Your task to perform on an android device: turn vacation reply on in the gmail app Image 0: 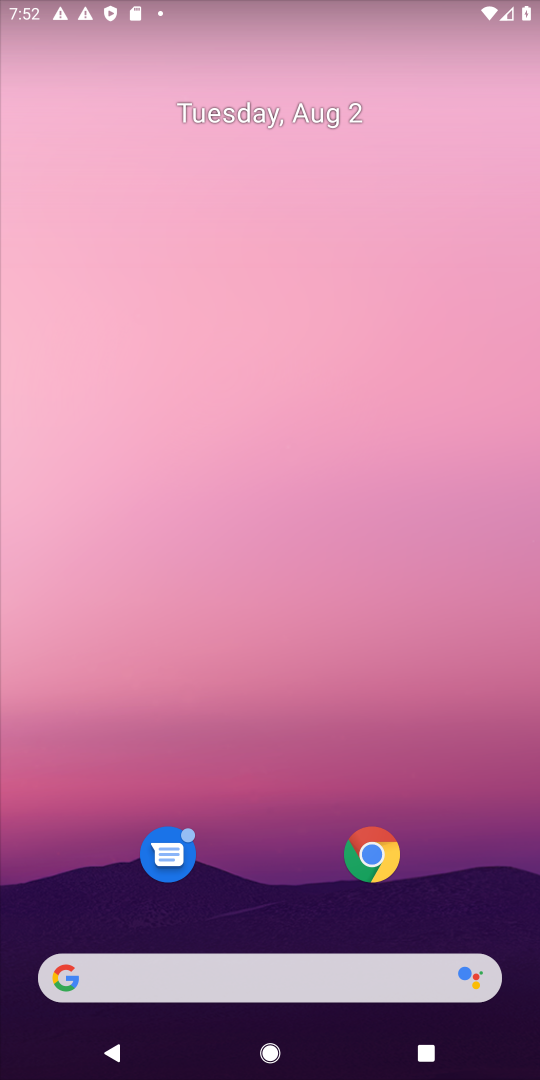
Step 0: drag from (459, 893) to (487, 66)
Your task to perform on an android device: turn vacation reply on in the gmail app Image 1: 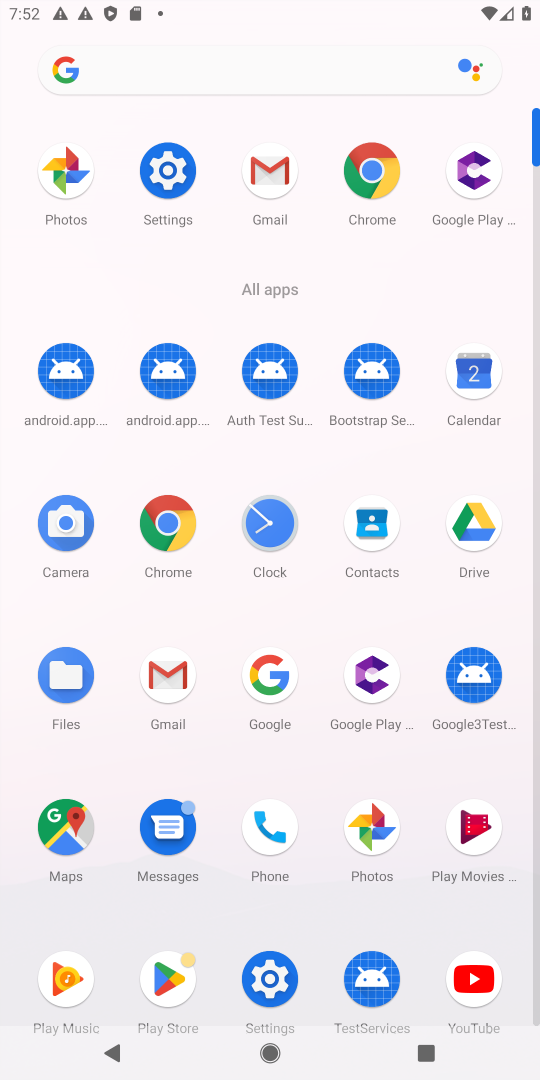
Step 1: click (159, 673)
Your task to perform on an android device: turn vacation reply on in the gmail app Image 2: 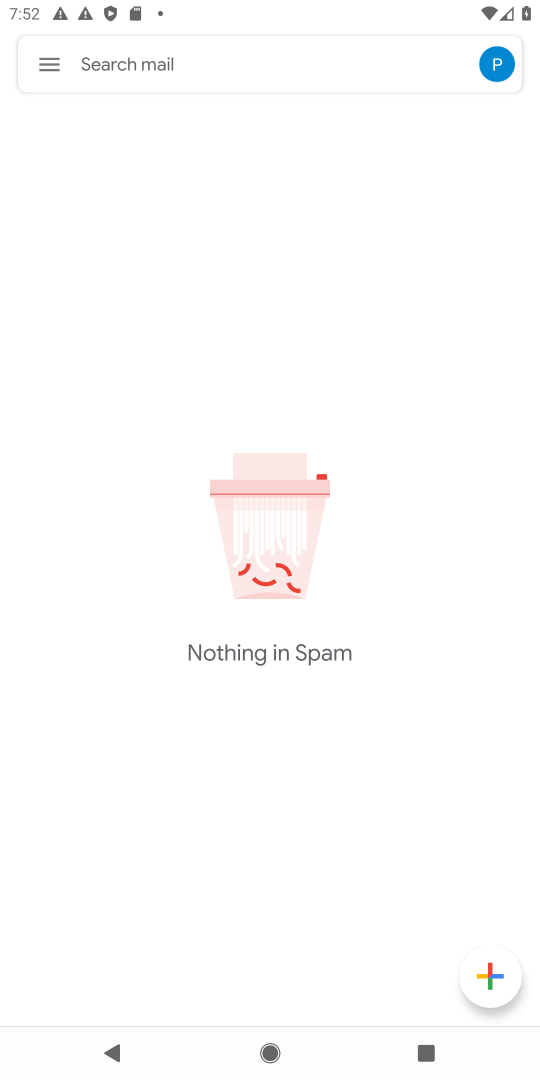
Step 2: click (39, 60)
Your task to perform on an android device: turn vacation reply on in the gmail app Image 3: 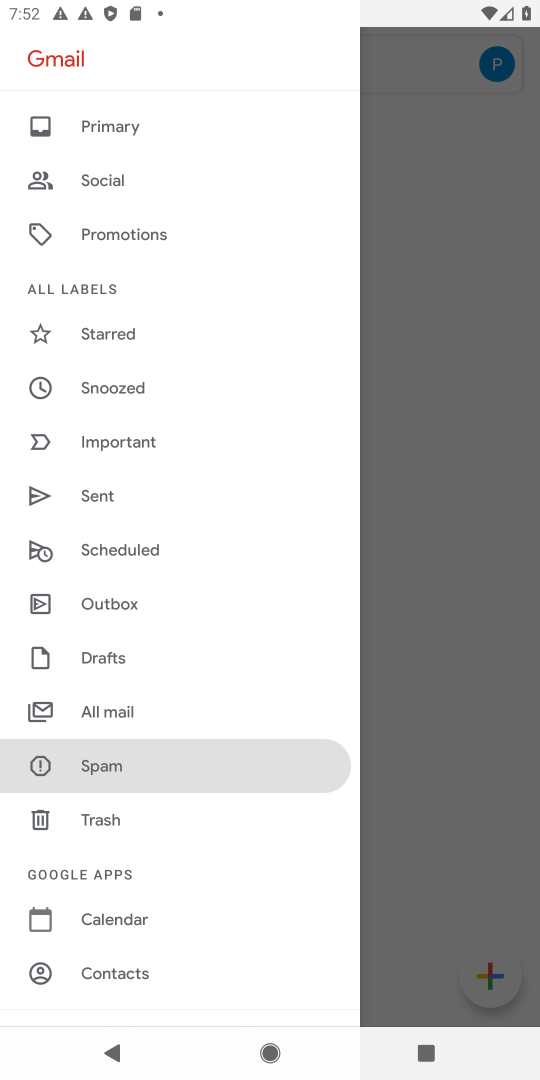
Step 3: drag from (241, 682) to (267, 394)
Your task to perform on an android device: turn vacation reply on in the gmail app Image 4: 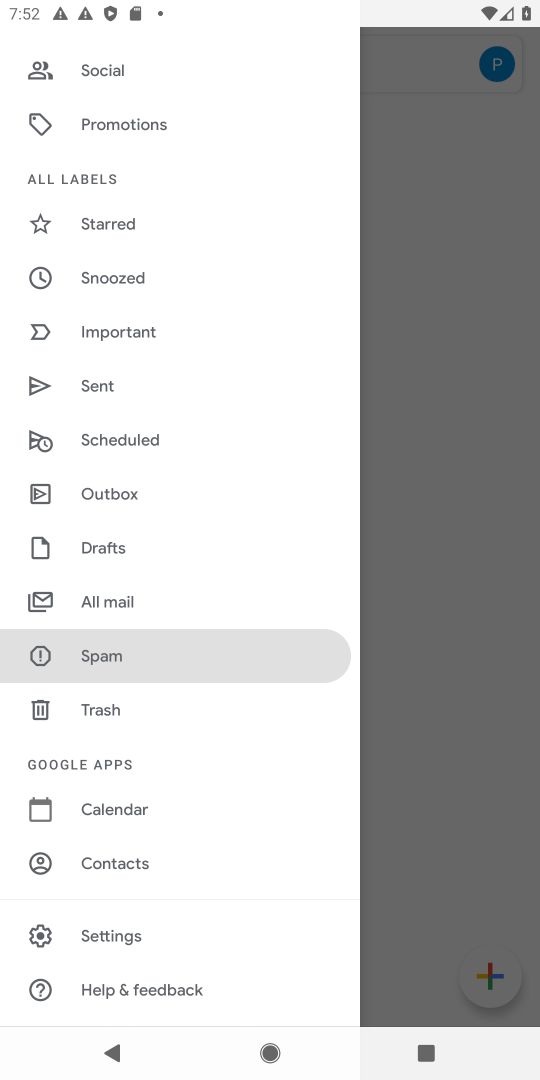
Step 4: drag from (236, 778) to (251, 467)
Your task to perform on an android device: turn vacation reply on in the gmail app Image 5: 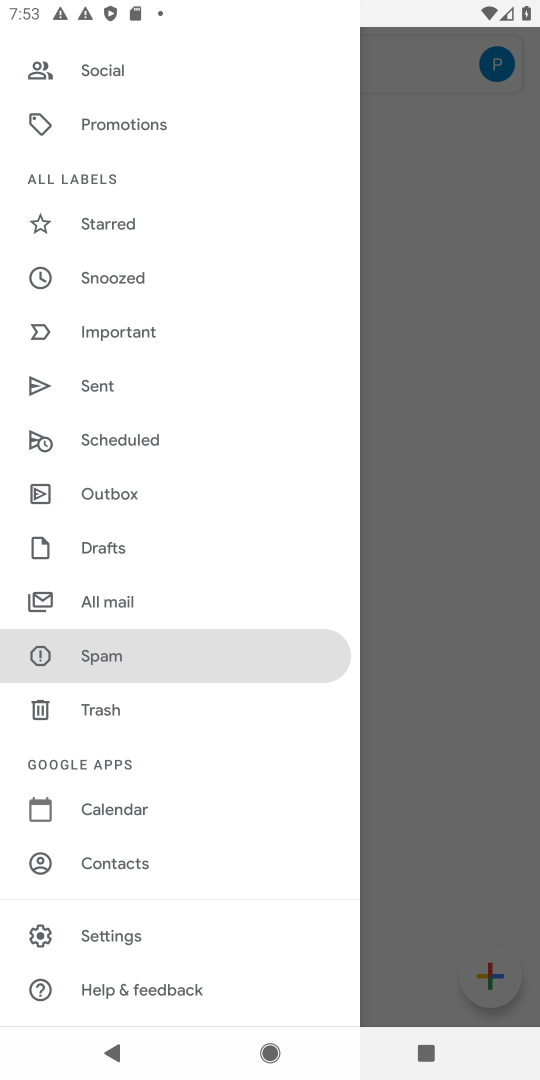
Step 5: click (167, 933)
Your task to perform on an android device: turn vacation reply on in the gmail app Image 6: 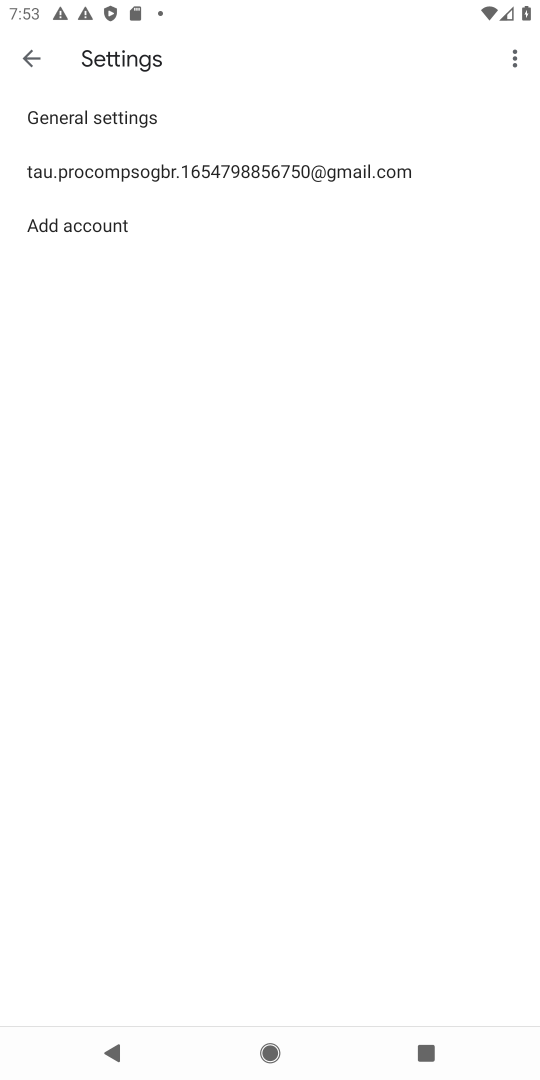
Step 6: click (293, 165)
Your task to perform on an android device: turn vacation reply on in the gmail app Image 7: 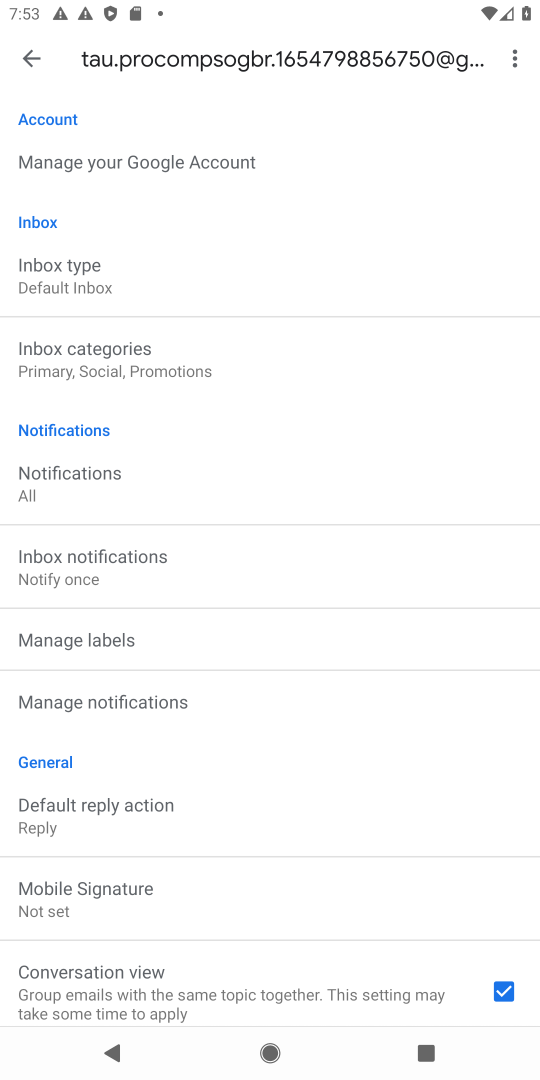
Step 7: drag from (391, 697) to (424, 431)
Your task to perform on an android device: turn vacation reply on in the gmail app Image 8: 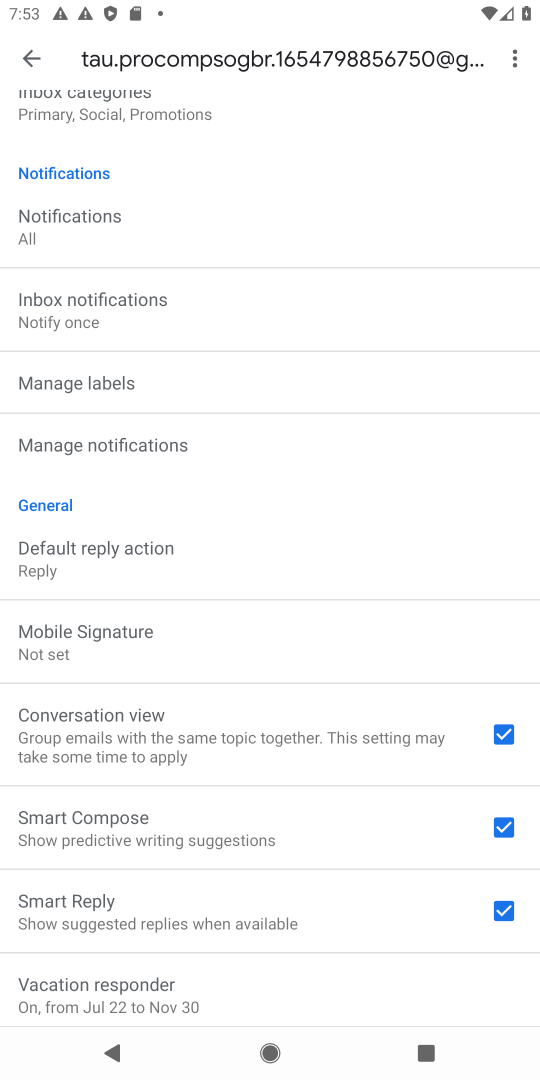
Step 8: drag from (359, 754) to (381, 422)
Your task to perform on an android device: turn vacation reply on in the gmail app Image 9: 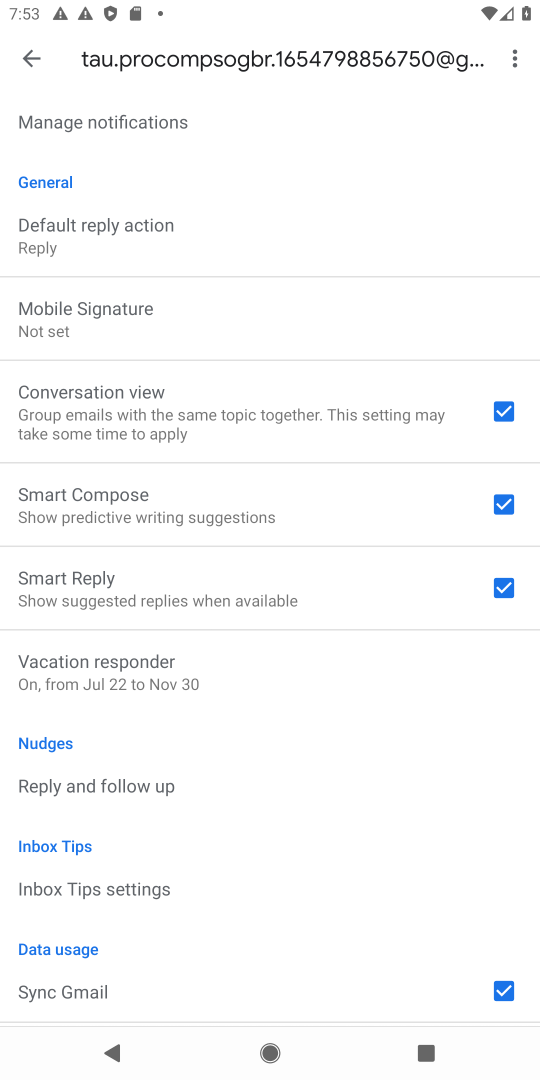
Step 9: drag from (303, 794) to (345, 550)
Your task to perform on an android device: turn vacation reply on in the gmail app Image 10: 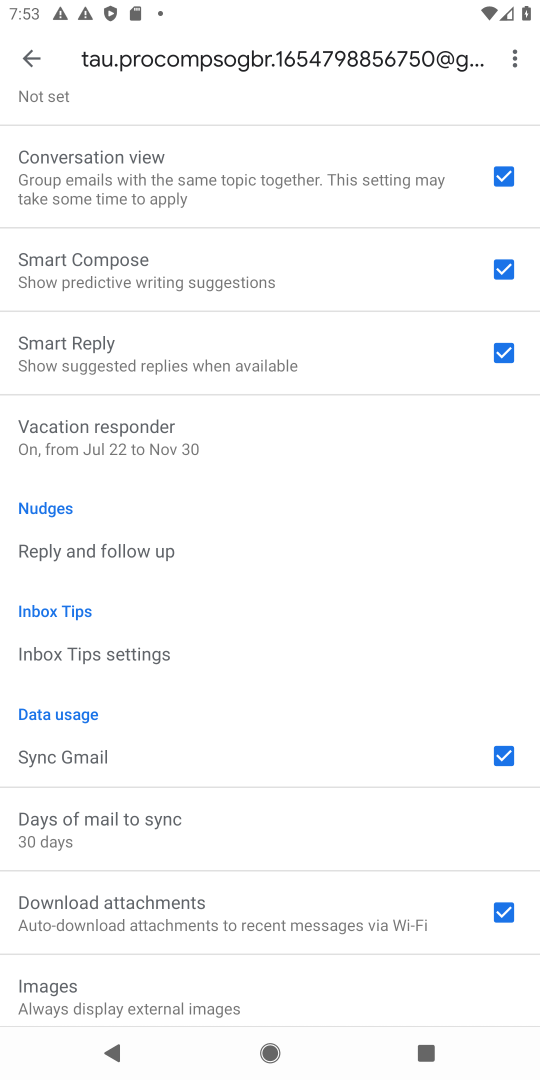
Step 10: drag from (333, 710) to (338, 509)
Your task to perform on an android device: turn vacation reply on in the gmail app Image 11: 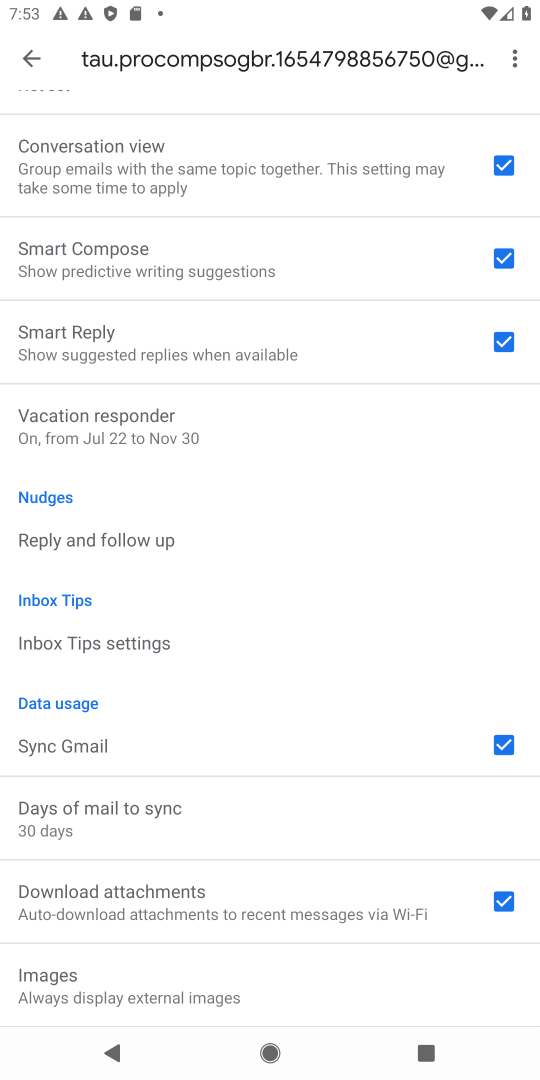
Step 11: drag from (341, 457) to (339, 775)
Your task to perform on an android device: turn vacation reply on in the gmail app Image 12: 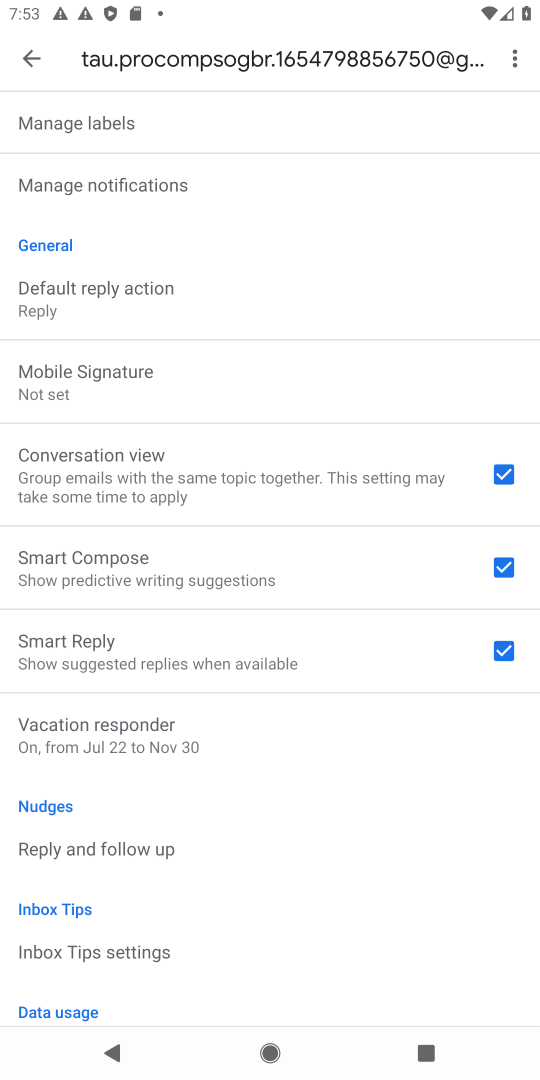
Step 12: click (202, 737)
Your task to perform on an android device: turn vacation reply on in the gmail app Image 13: 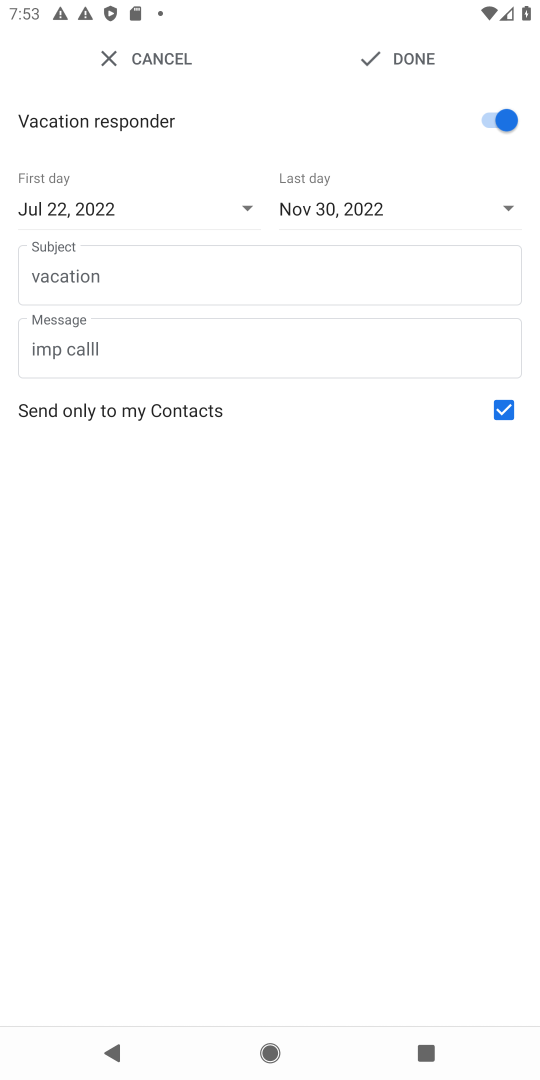
Step 13: task complete